Your task to perform on an android device: Turn off the flashlight Image 0: 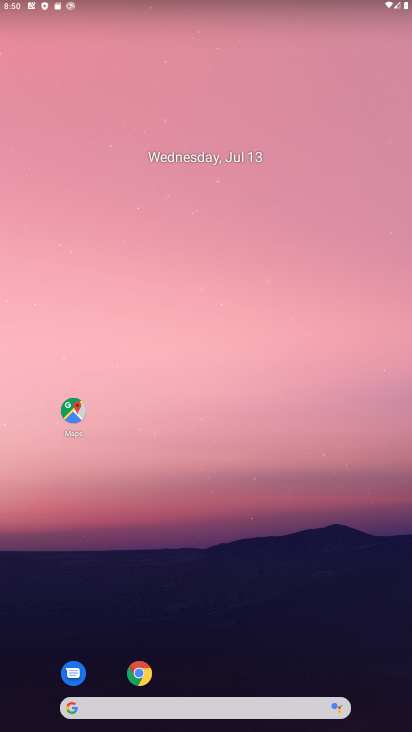
Step 0: drag from (251, 635) to (201, 175)
Your task to perform on an android device: Turn off the flashlight Image 1: 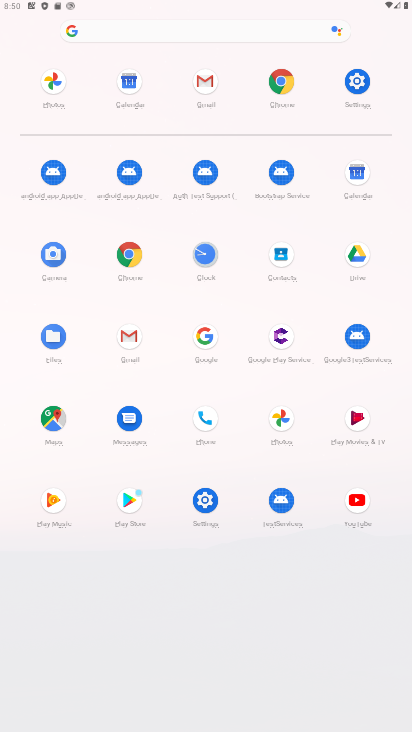
Step 1: click (361, 80)
Your task to perform on an android device: Turn off the flashlight Image 2: 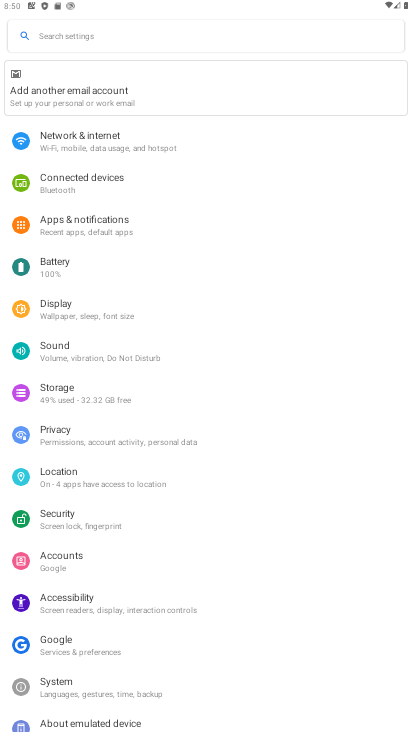
Step 2: click (68, 313)
Your task to perform on an android device: Turn off the flashlight Image 3: 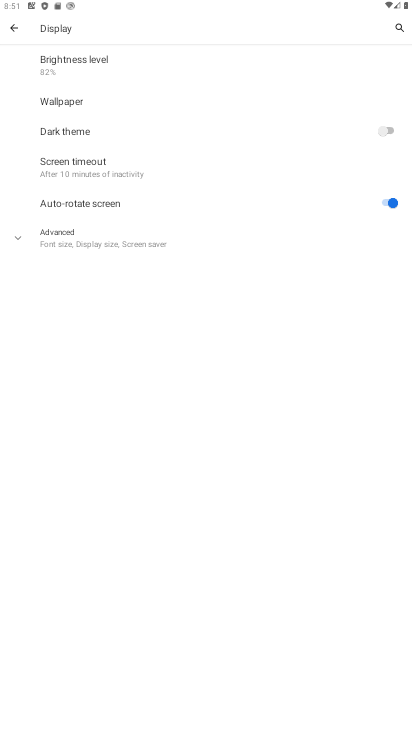
Step 3: task complete